Your task to perform on an android device: Go to network settings Image 0: 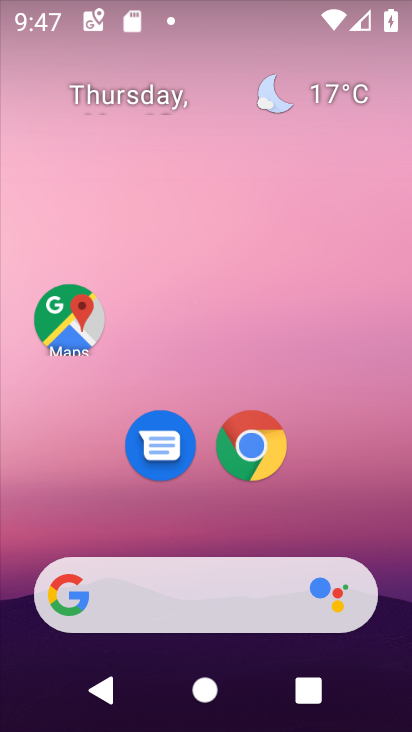
Step 0: drag from (248, 532) to (266, 296)
Your task to perform on an android device: Go to network settings Image 1: 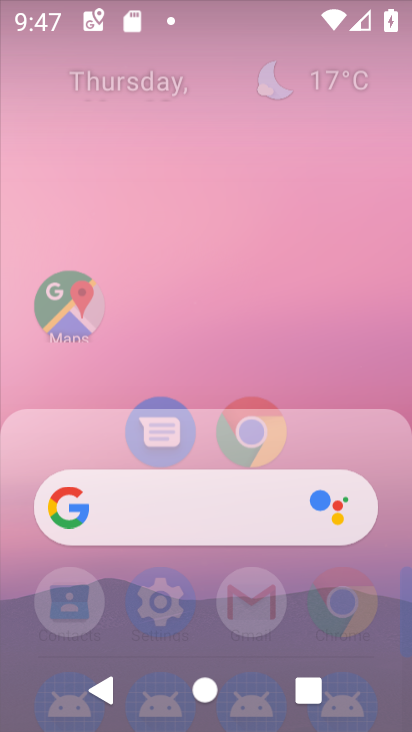
Step 1: click (263, 106)
Your task to perform on an android device: Go to network settings Image 2: 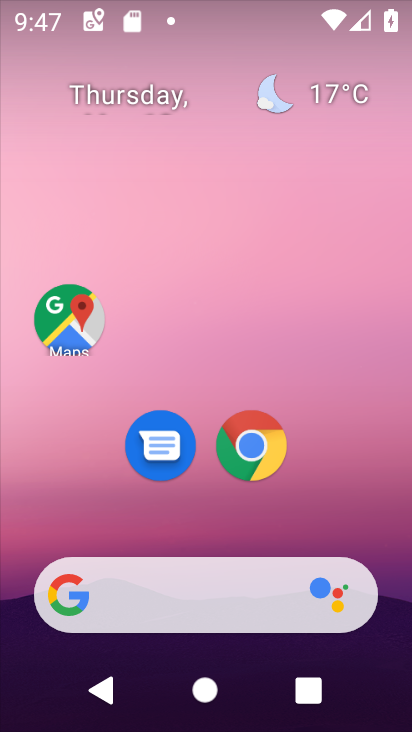
Step 2: click (246, 30)
Your task to perform on an android device: Go to network settings Image 3: 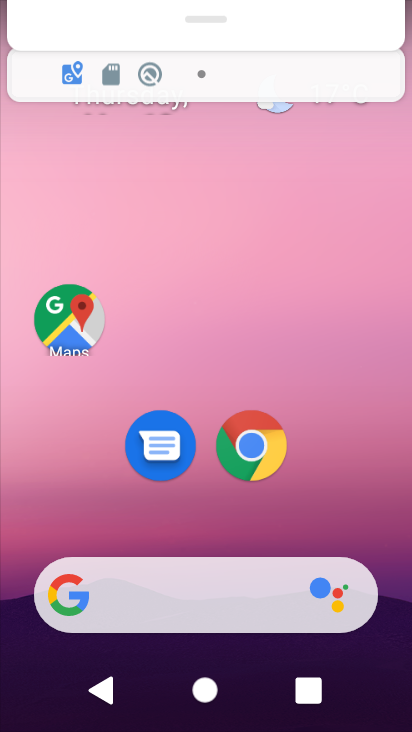
Step 3: drag from (179, 538) to (255, 81)
Your task to perform on an android device: Go to network settings Image 4: 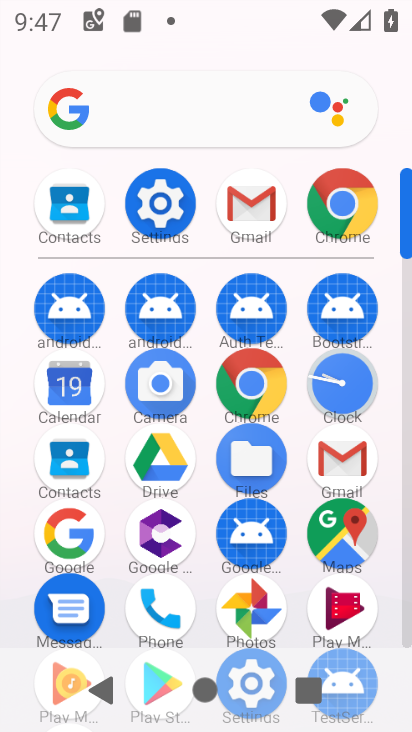
Step 4: click (147, 192)
Your task to perform on an android device: Go to network settings Image 5: 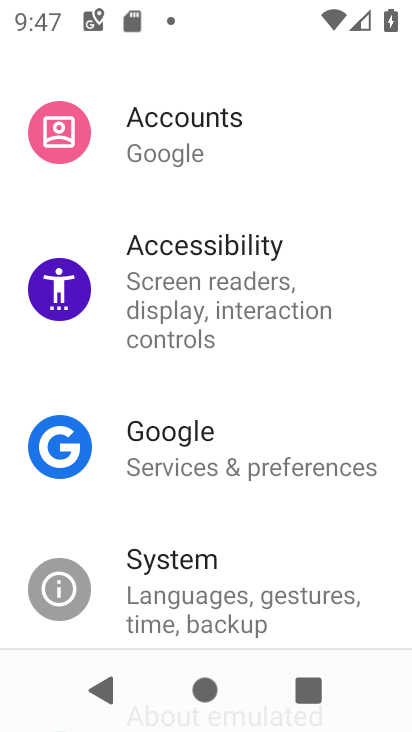
Step 5: drag from (161, 172) to (258, 604)
Your task to perform on an android device: Go to network settings Image 6: 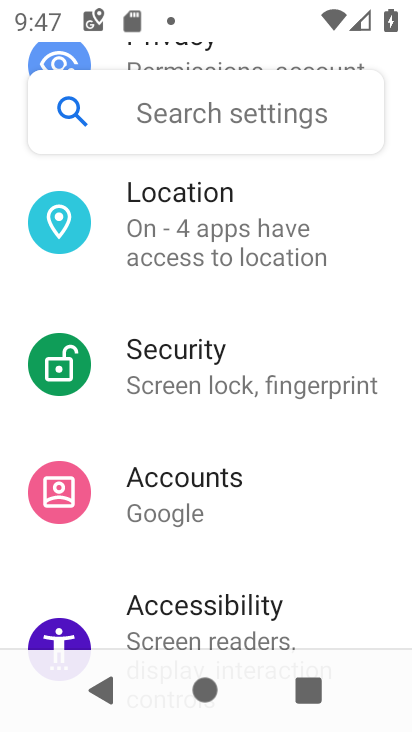
Step 6: drag from (178, 255) to (278, 648)
Your task to perform on an android device: Go to network settings Image 7: 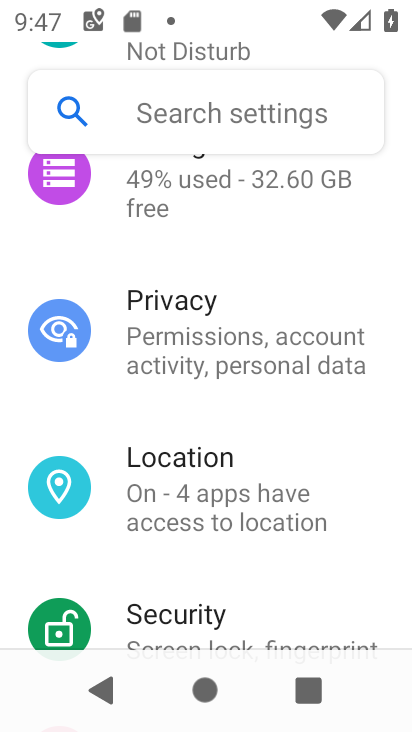
Step 7: drag from (160, 308) to (246, 666)
Your task to perform on an android device: Go to network settings Image 8: 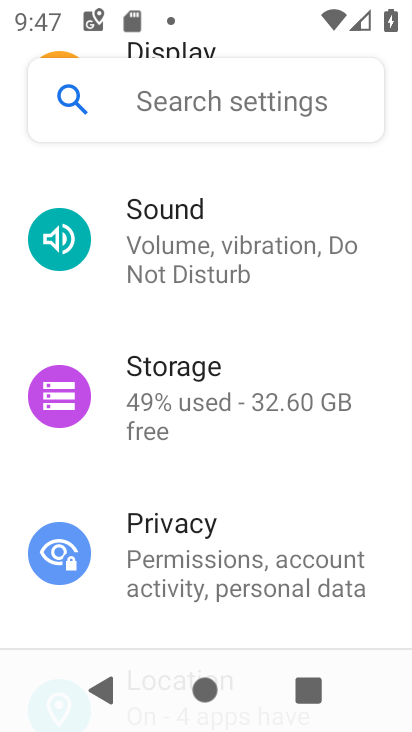
Step 8: drag from (142, 299) to (188, 643)
Your task to perform on an android device: Go to network settings Image 9: 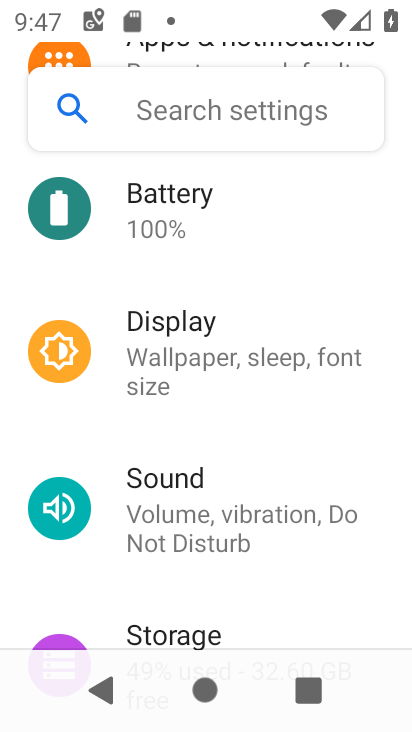
Step 9: drag from (186, 273) to (305, 640)
Your task to perform on an android device: Go to network settings Image 10: 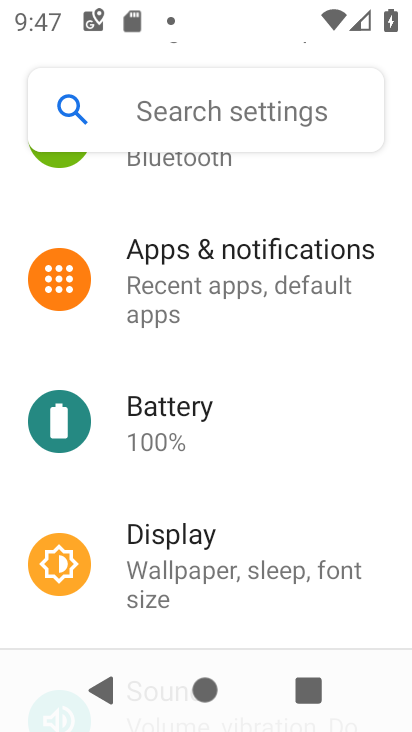
Step 10: drag from (236, 327) to (291, 619)
Your task to perform on an android device: Go to network settings Image 11: 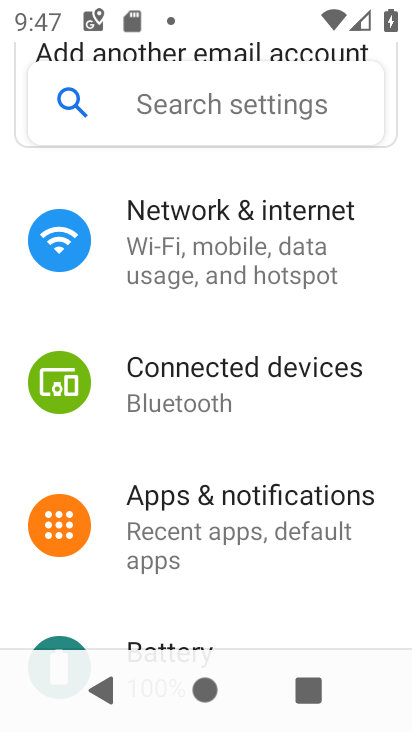
Step 11: click (191, 264)
Your task to perform on an android device: Go to network settings Image 12: 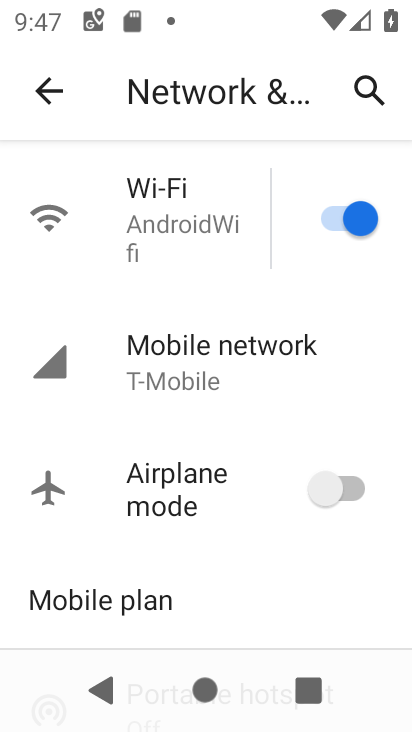
Step 12: click (154, 382)
Your task to perform on an android device: Go to network settings Image 13: 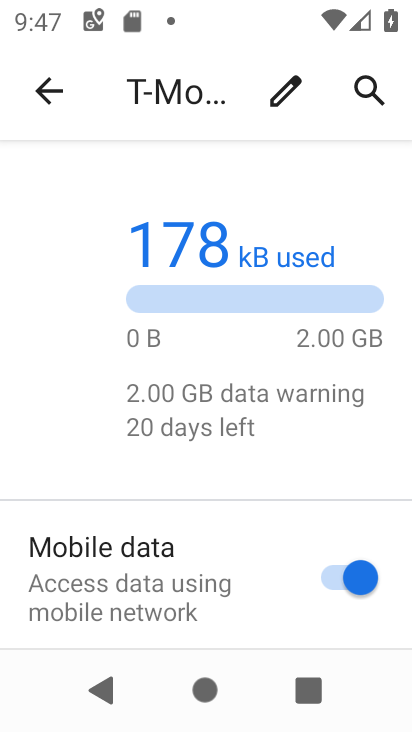
Step 13: task complete